Your task to perform on an android device: Open the map Image 0: 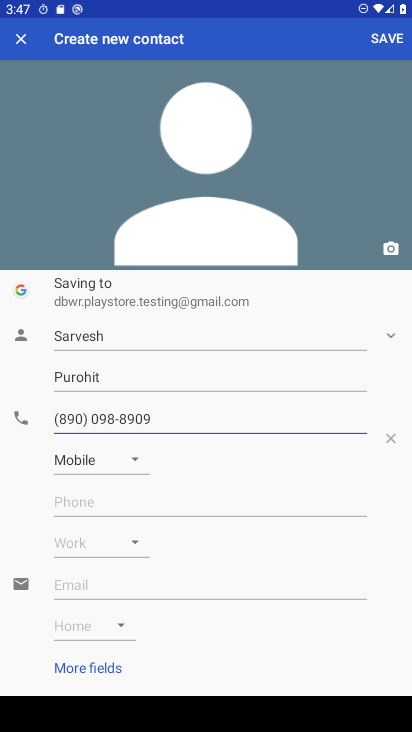
Step 0: press home button
Your task to perform on an android device: Open the map Image 1: 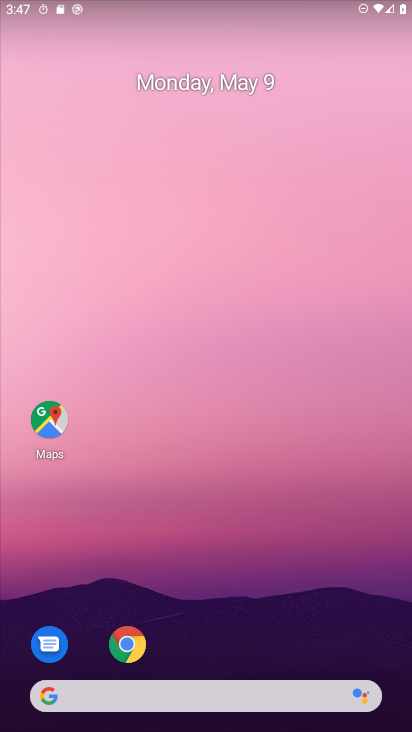
Step 1: click (45, 443)
Your task to perform on an android device: Open the map Image 2: 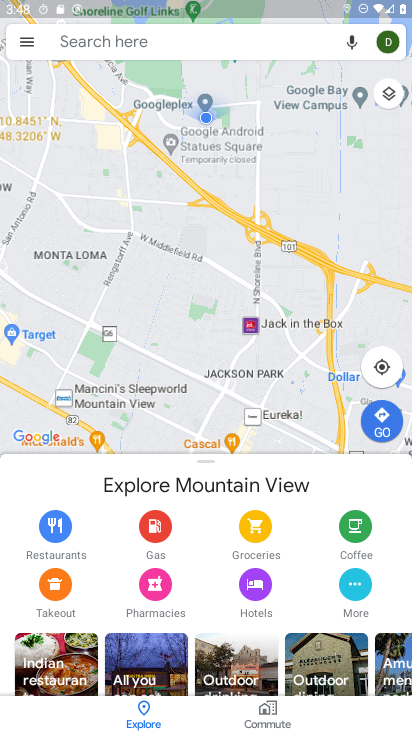
Step 2: task complete